Your task to perform on an android device: turn smart compose on in the gmail app Image 0: 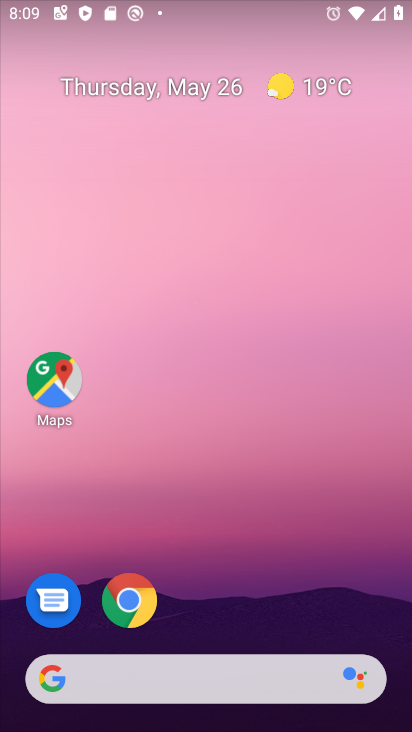
Step 0: press home button
Your task to perform on an android device: turn smart compose on in the gmail app Image 1: 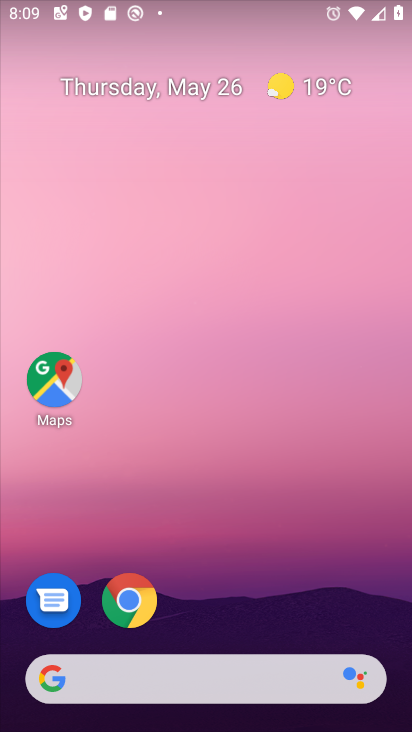
Step 1: drag from (224, 632) to (147, 236)
Your task to perform on an android device: turn smart compose on in the gmail app Image 2: 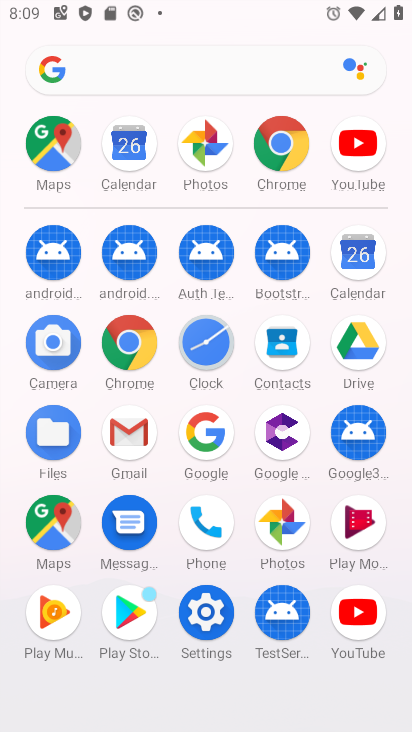
Step 2: click (131, 458)
Your task to perform on an android device: turn smart compose on in the gmail app Image 3: 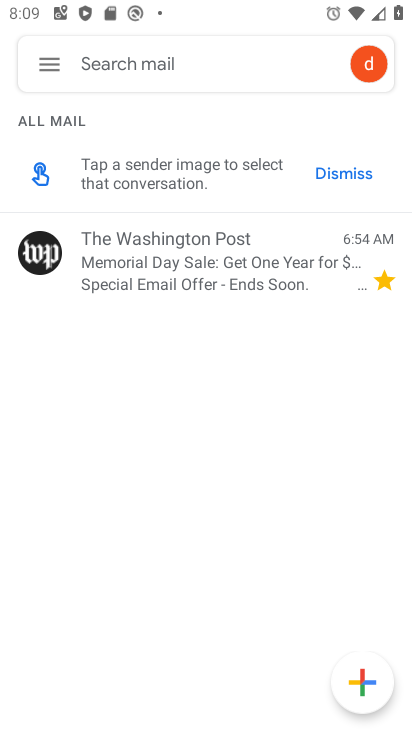
Step 3: click (43, 74)
Your task to perform on an android device: turn smart compose on in the gmail app Image 4: 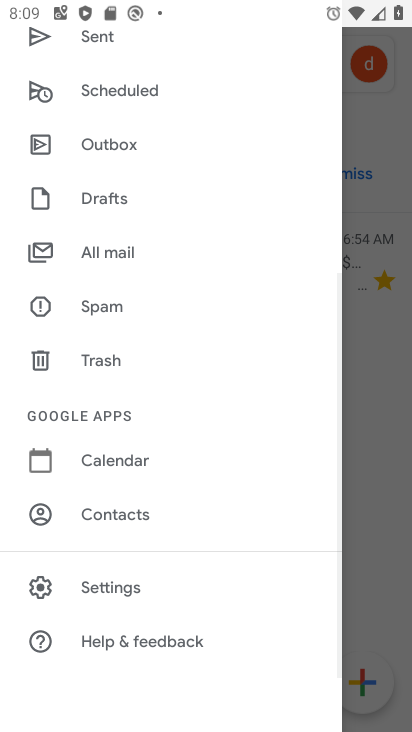
Step 4: click (108, 587)
Your task to perform on an android device: turn smart compose on in the gmail app Image 5: 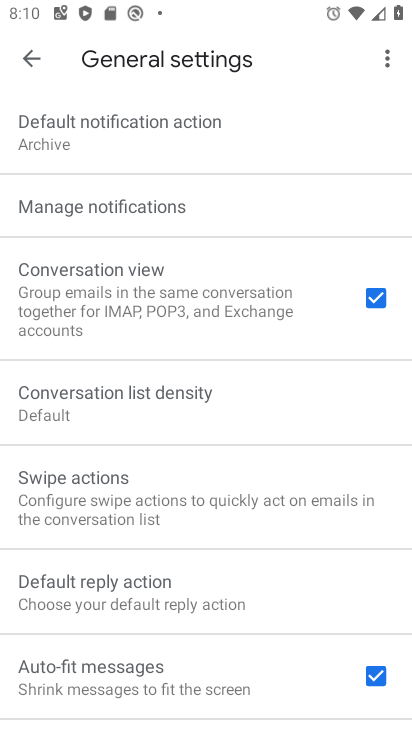
Step 5: click (29, 65)
Your task to perform on an android device: turn smart compose on in the gmail app Image 6: 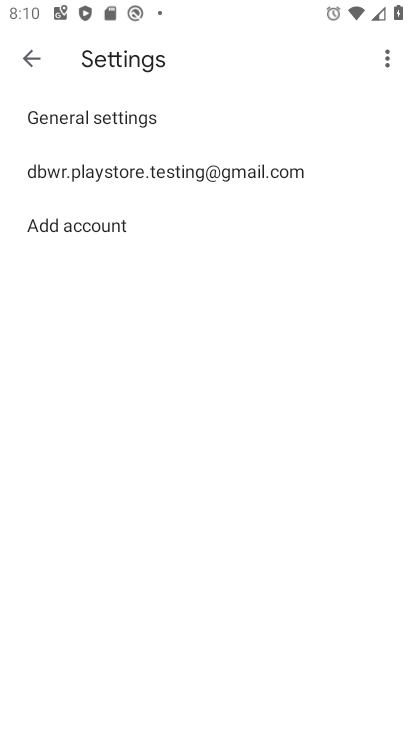
Step 6: click (109, 175)
Your task to perform on an android device: turn smart compose on in the gmail app Image 7: 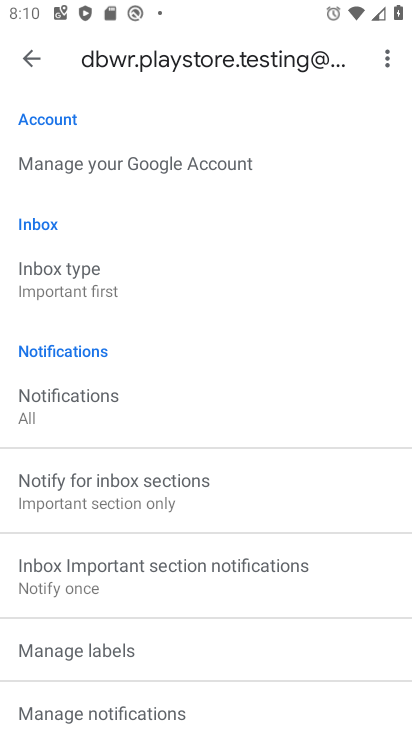
Step 7: task complete